Your task to perform on an android device: Open location settings Image 0: 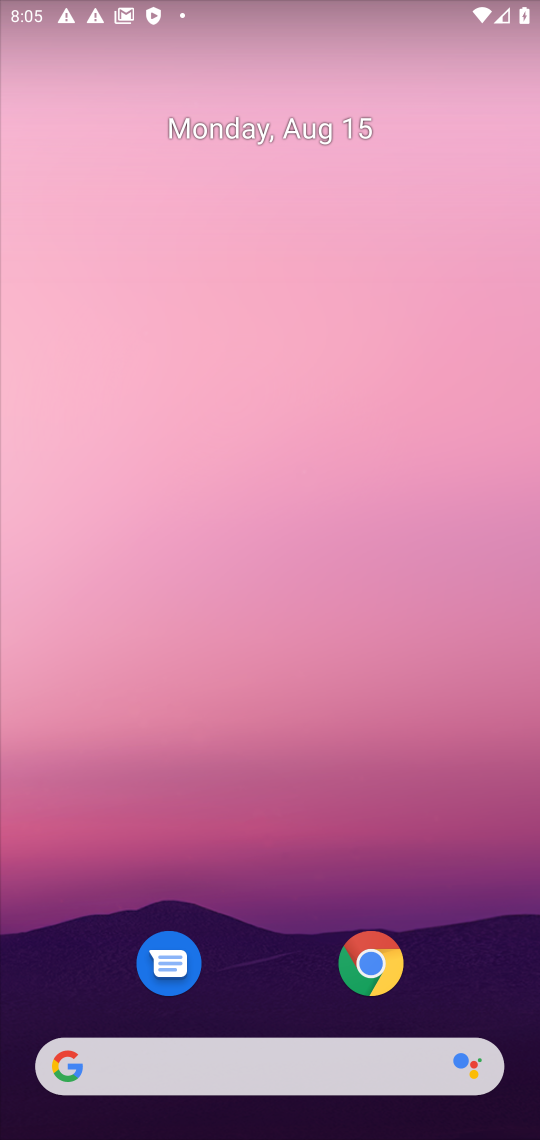
Step 0: drag from (269, 1000) to (355, 252)
Your task to perform on an android device: Open location settings Image 1: 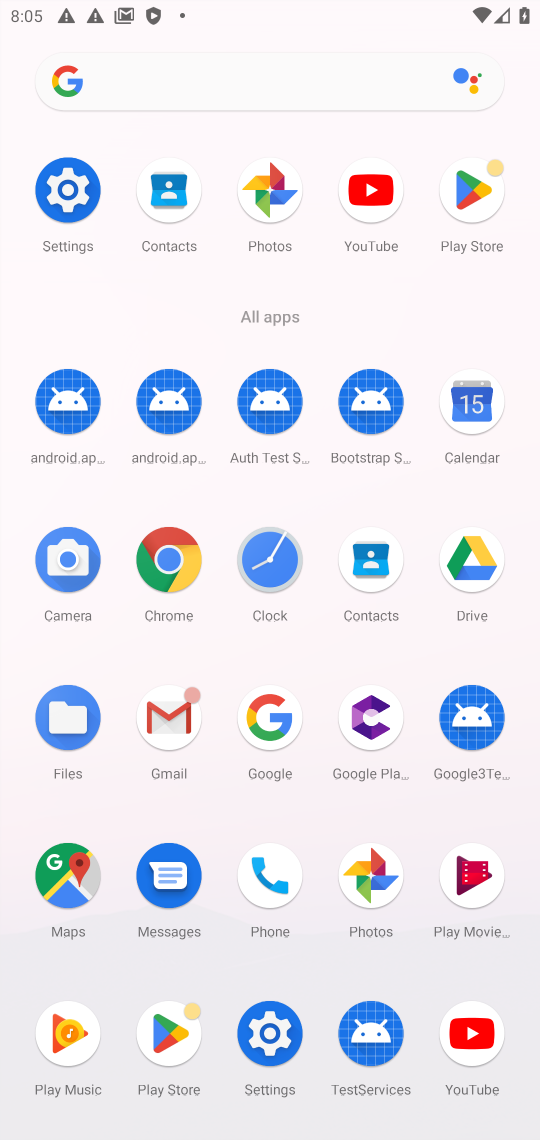
Step 1: click (68, 200)
Your task to perform on an android device: Open location settings Image 2: 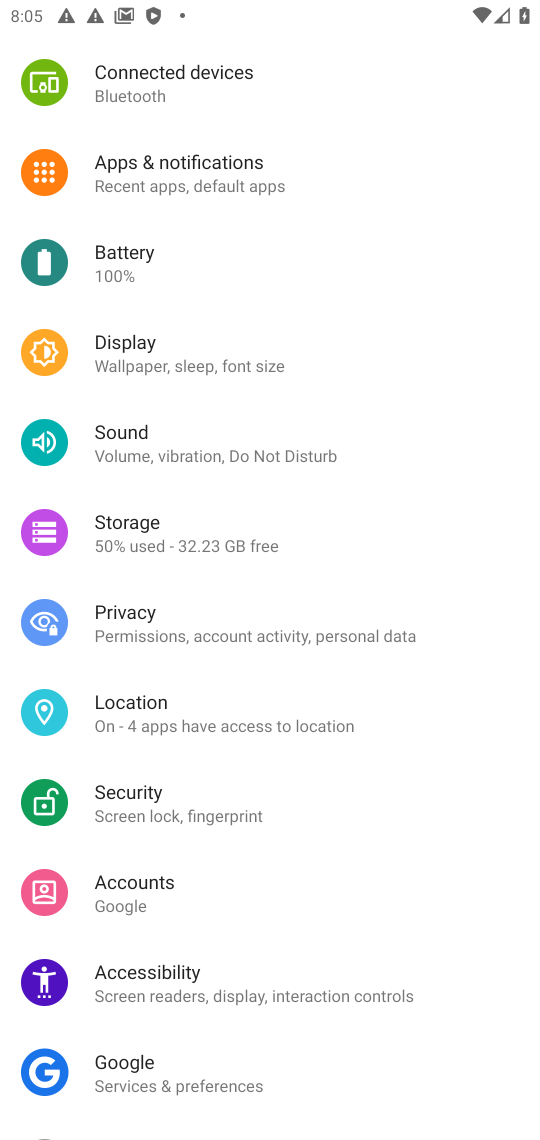
Step 2: click (165, 724)
Your task to perform on an android device: Open location settings Image 3: 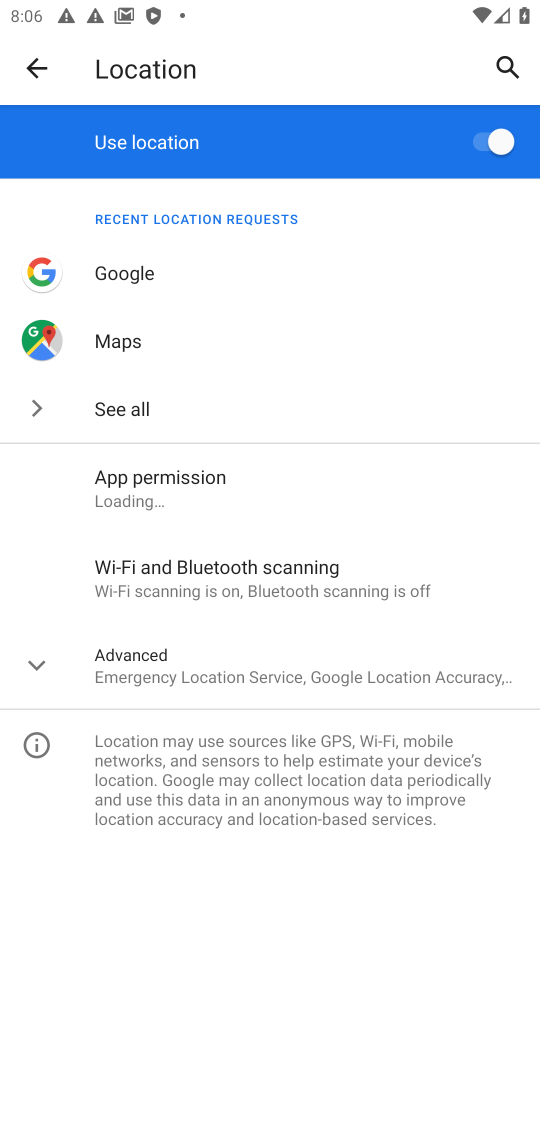
Step 3: task complete